Your task to perform on an android device: Open location settings Image 0: 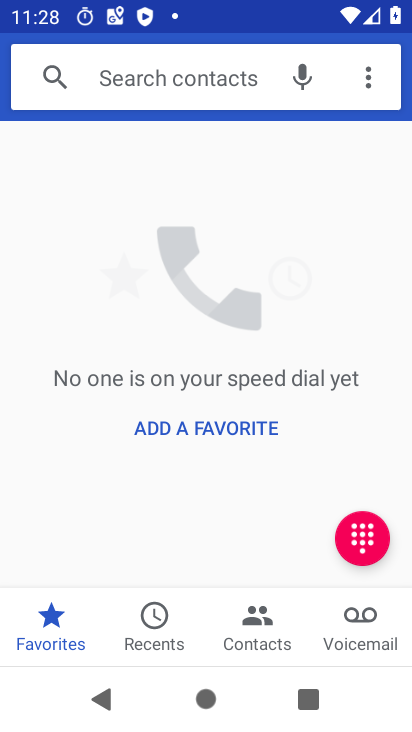
Step 0: press home button
Your task to perform on an android device: Open location settings Image 1: 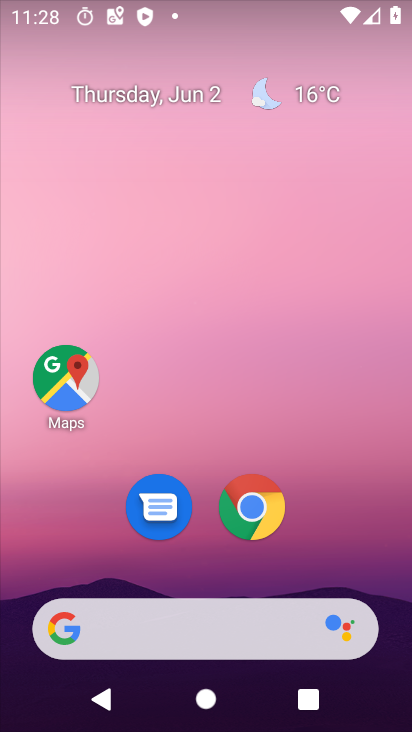
Step 1: drag from (404, 639) to (309, 85)
Your task to perform on an android device: Open location settings Image 2: 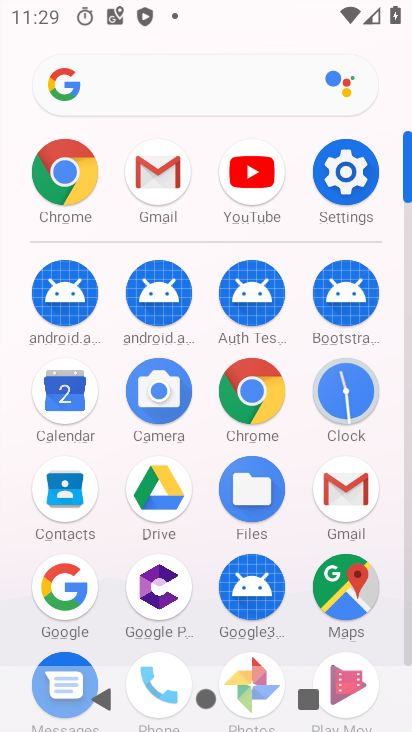
Step 2: click (354, 198)
Your task to perform on an android device: Open location settings Image 3: 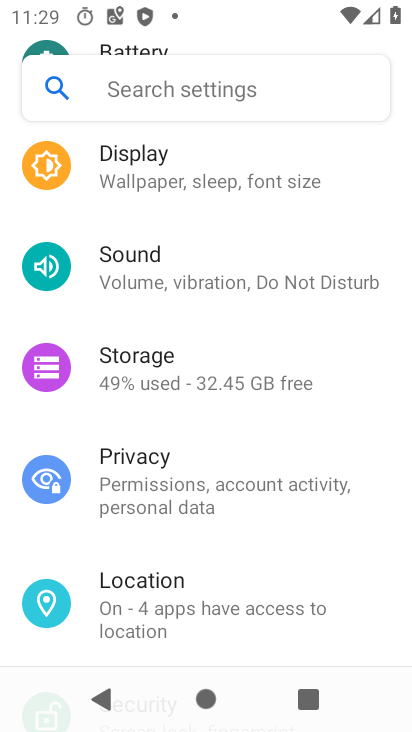
Step 3: click (145, 595)
Your task to perform on an android device: Open location settings Image 4: 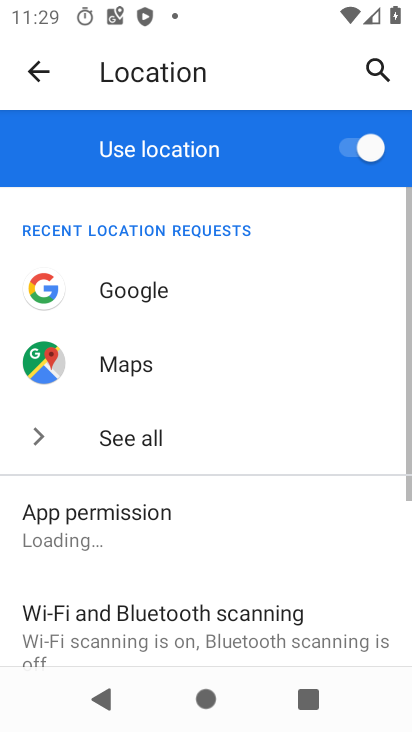
Step 4: task complete